Your task to perform on an android device: turn off location Image 0: 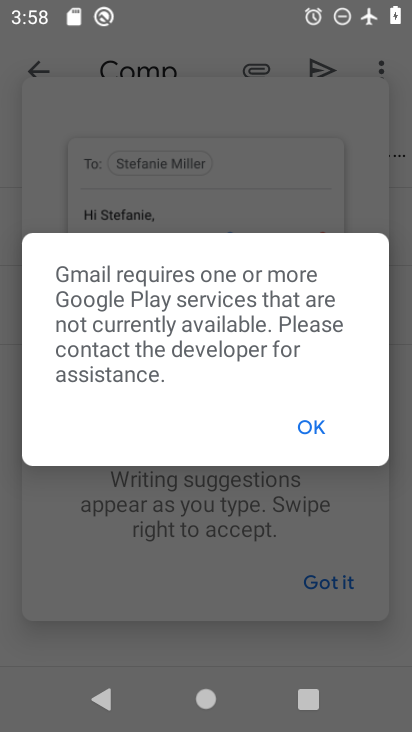
Step 0: press home button
Your task to perform on an android device: turn off location Image 1: 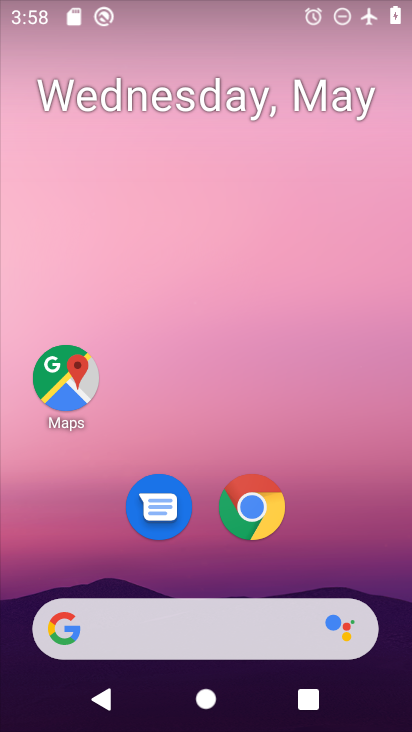
Step 1: drag from (258, 627) to (288, 254)
Your task to perform on an android device: turn off location Image 2: 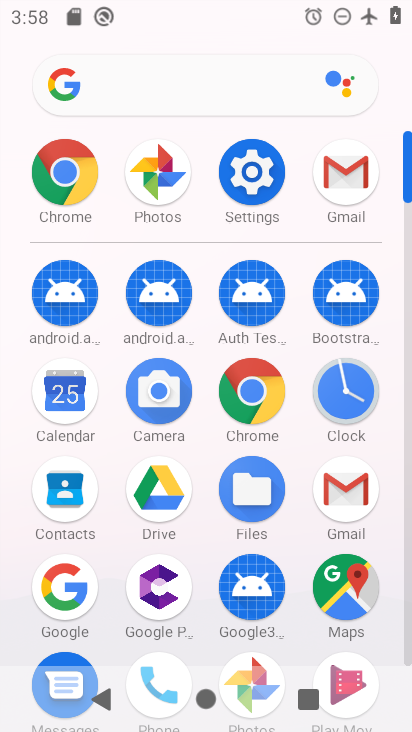
Step 2: click (257, 192)
Your task to perform on an android device: turn off location Image 3: 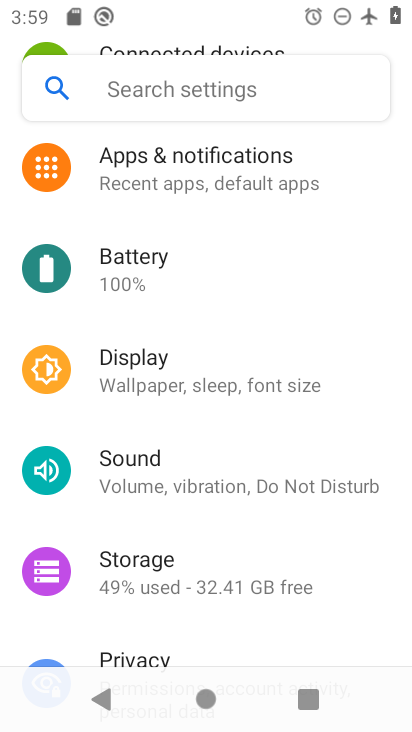
Step 3: drag from (265, 202) to (236, 536)
Your task to perform on an android device: turn off location Image 4: 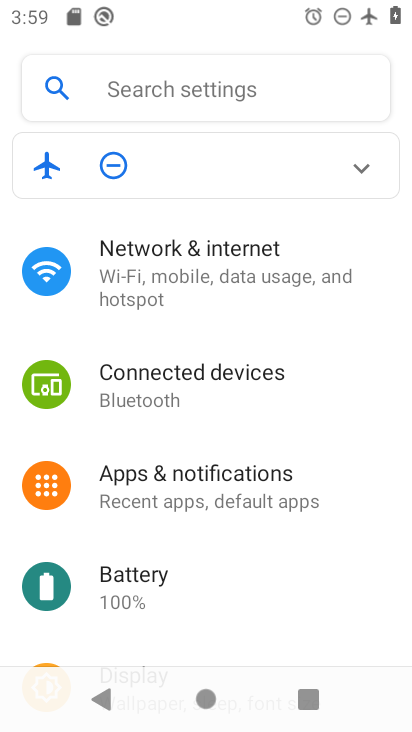
Step 4: drag from (233, 507) to (299, 143)
Your task to perform on an android device: turn off location Image 5: 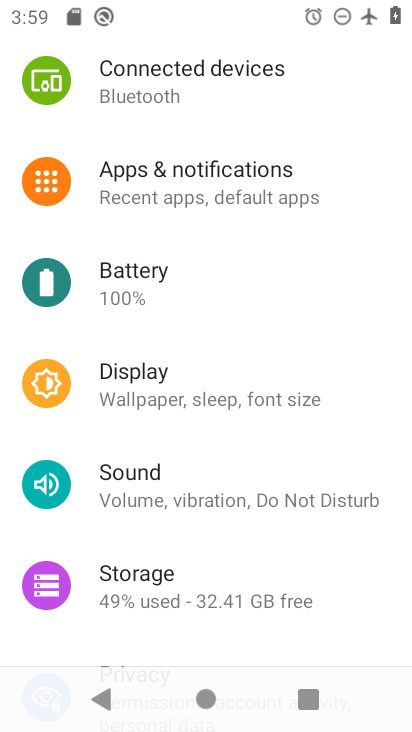
Step 5: drag from (225, 505) to (294, 211)
Your task to perform on an android device: turn off location Image 6: 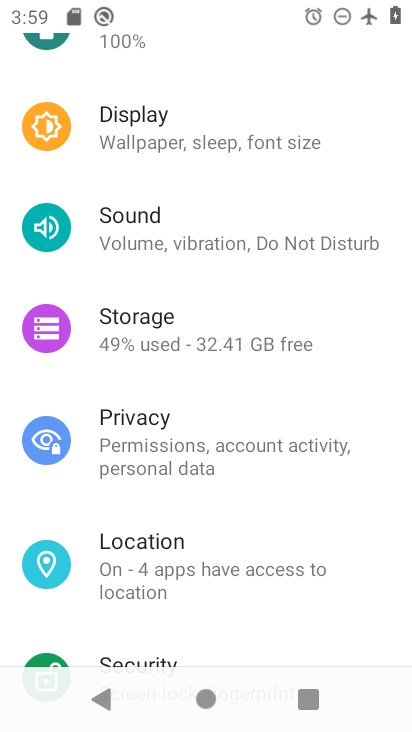
Step 6: click (182, 565)
Your task to perform on an android device: turn off location Image 7: 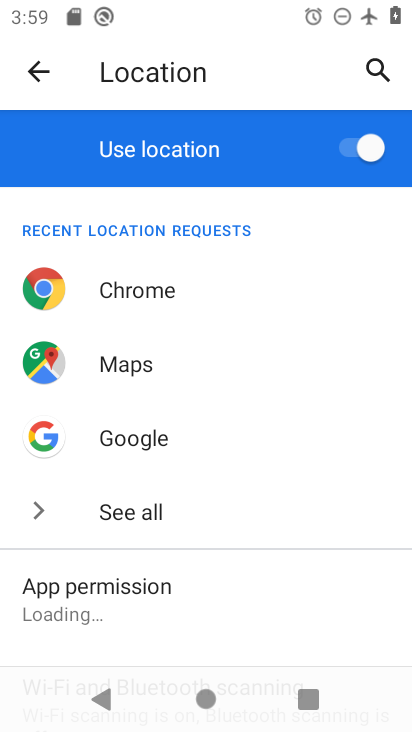
Step 7: drag from (198, 469) to (242, 252)
Your task to perform on an android device: turn off location Image 8: 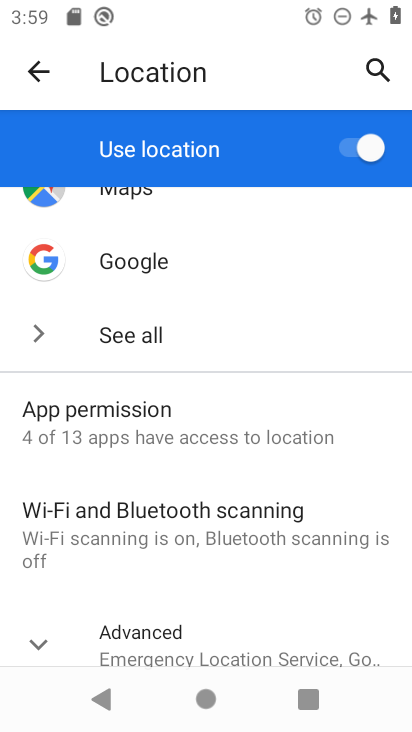
Step 8: drag from (218, 491) to (257, 343)
Your task to perform on an android device: turn off location Image 9: 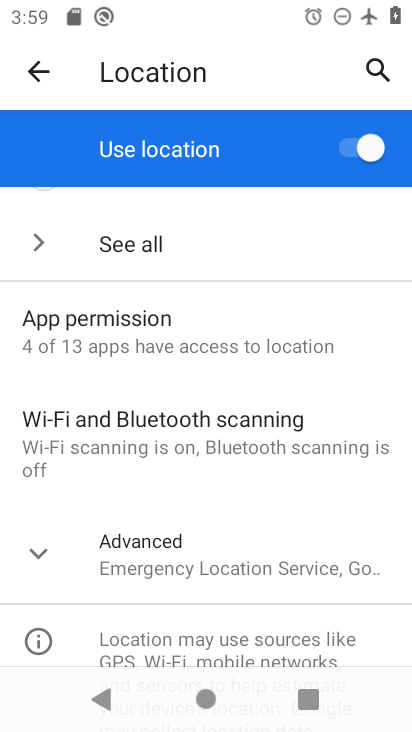
Step 9: click (300, 163)
Your task to perform on an android device: turn off location Image 10: 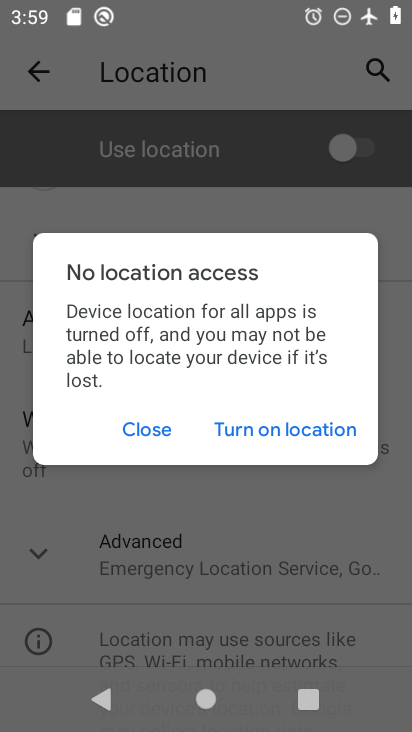
Step 10: click (123, 431)
Your task to perform on an android device: turn off location Image 11: 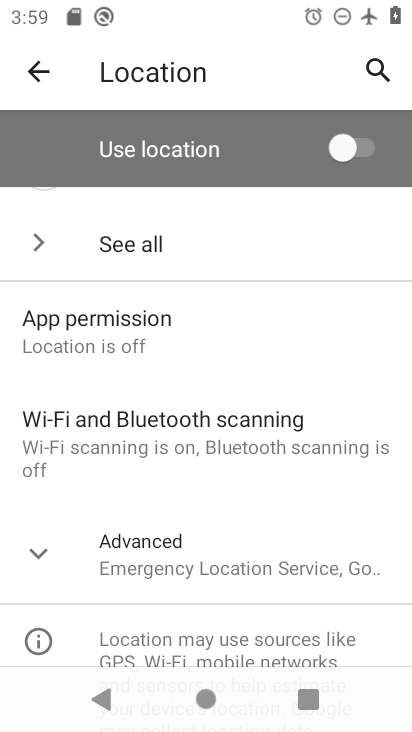
Step 11: task complete